Your task to perform on an android device: Open Chrome and go to settings Image 0: 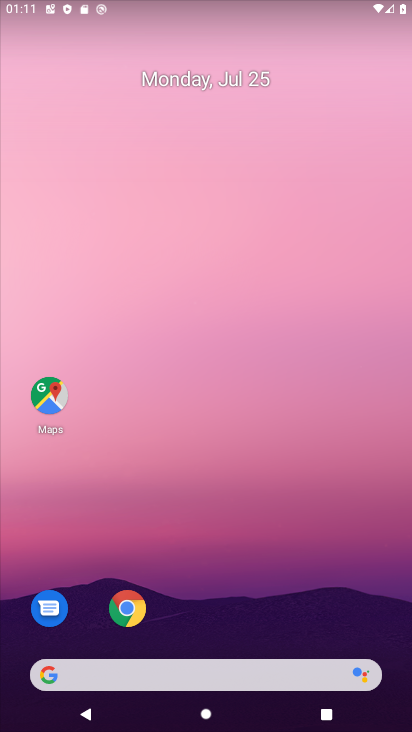
Step 0: click (142, 602)
Your task to perform on an android device: Open Chrome and go to settings Image 1: 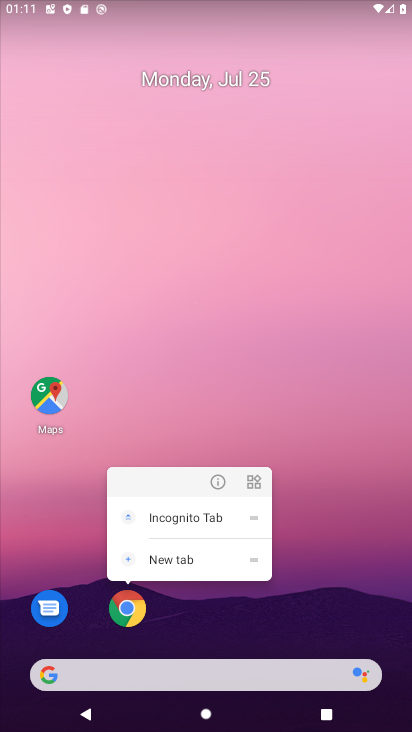
Step 1: click (136, 623)
Your task to perform on an android device: Open Chrome and go to settings Image 2: 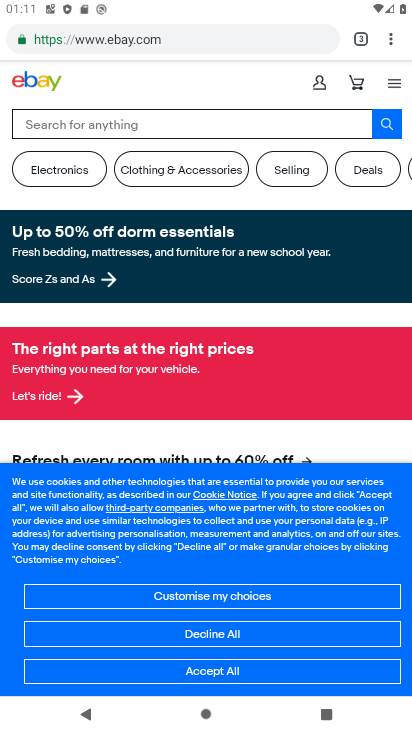
Step 2: task complete